Your task to perform on an android device: toggle sleep mode Image 0: 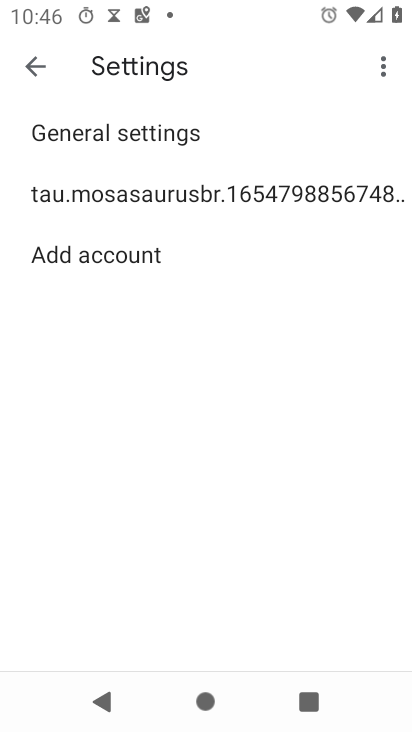
Step 0: press home button
Your task to perform on an android device: toggle sleep mode Image 1: 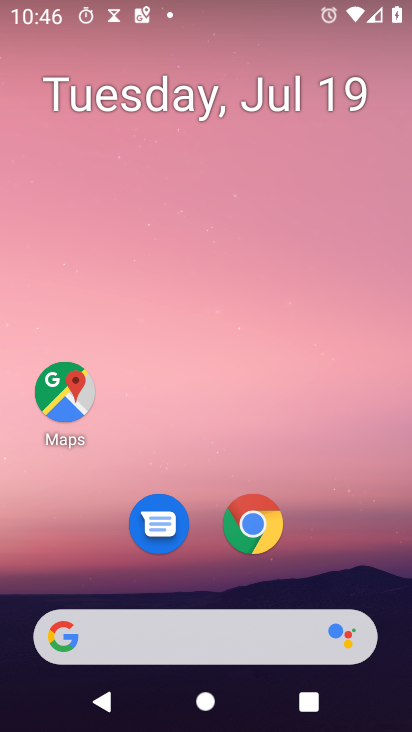
Step 1: drag from (227, 546) to (310, 75)
Your task to perform on an android device: toggle sleep mode Image 2: 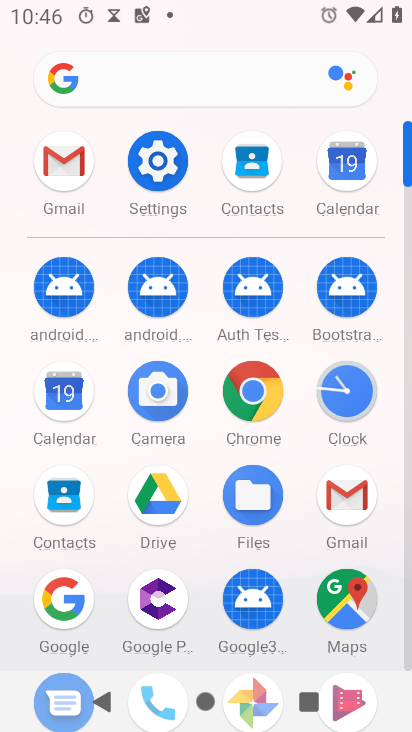
Step 2: click (166, 159)
Your task to perform on an android device: toggle sleep mode Image 3: 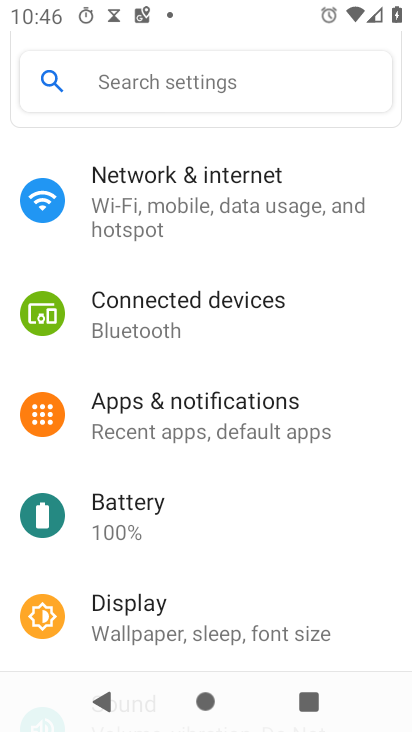
Step 3: drag from (207, 513) to (300, 243)
Your task to perform on an android device: toggle sleep mode Image 4: 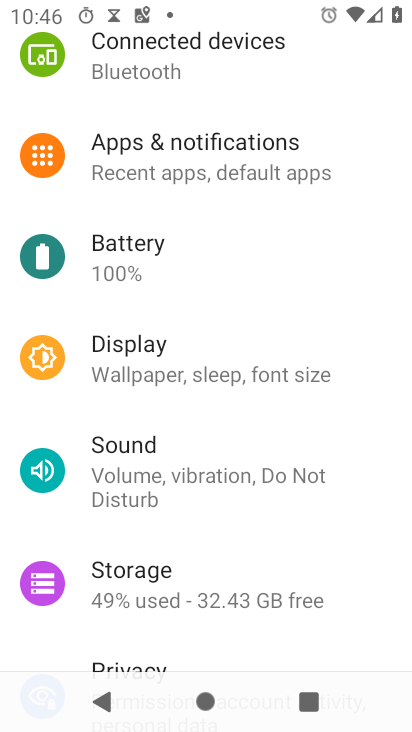
Step 4: click (188, 369)
Your task to perform on an android device: toggle sleep mode Image 5: 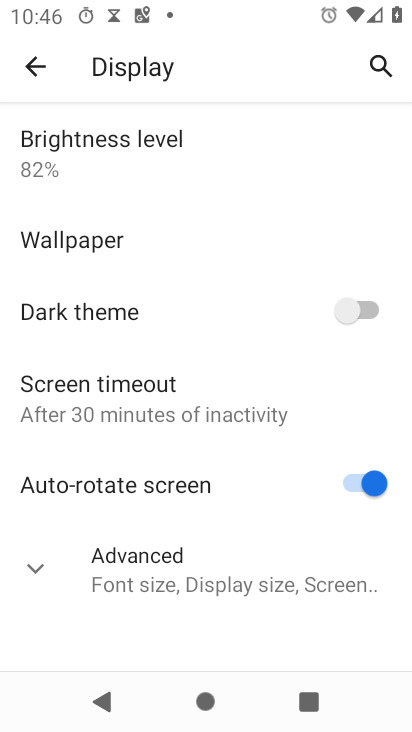
Step 5: task complete